Your task to perform on an android device: change the upload size in google photos Image 0: 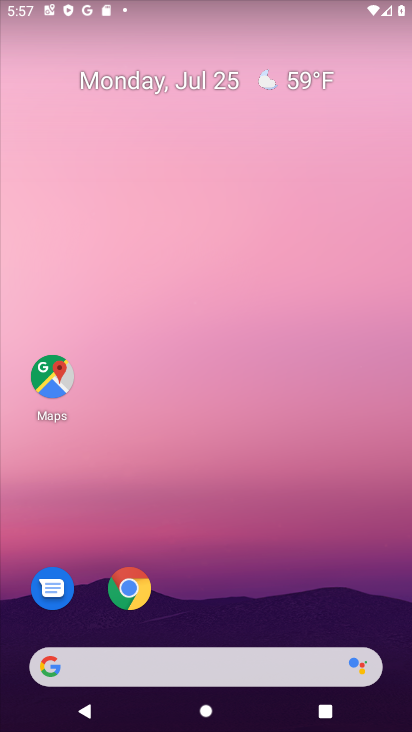
Step 0: drag from (182, 539) to (236, 103)
Your task to perform on an android device: change the upload size in google photos Image 1: 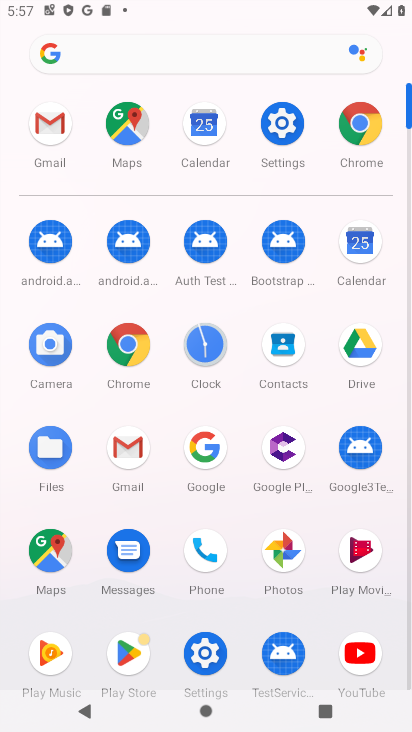
Step 1: click (280, 548)
Your task to perform on an android device: change the upload size in google photos Image 2: 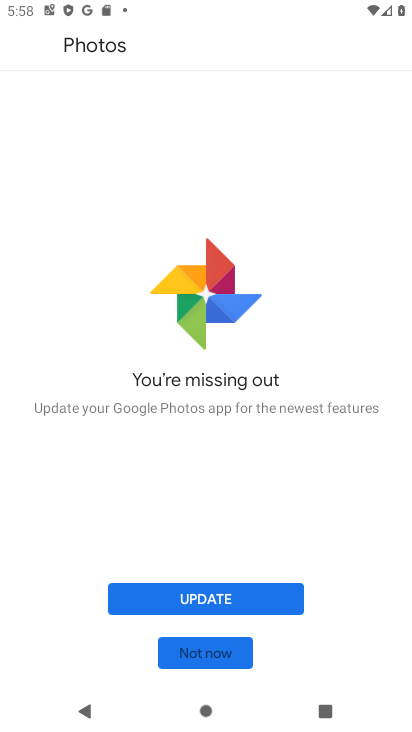
Step 2: click (222, 657)
Your task to perform on an android device: change the upload size in google photos Image 3: 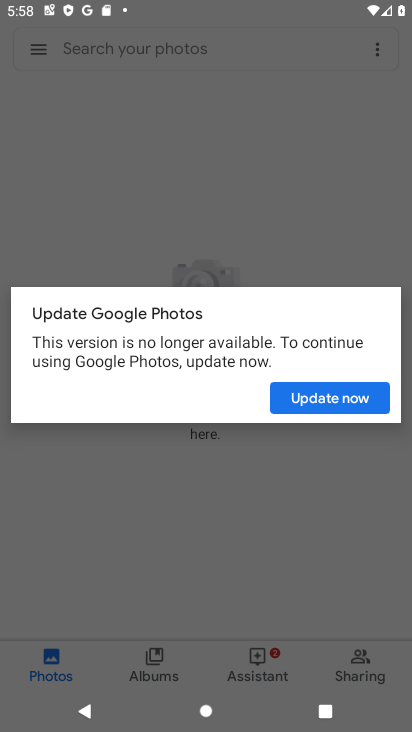
Step 3: task complete